Your task to perform on an android device: Turn on the flashlight Image 0: 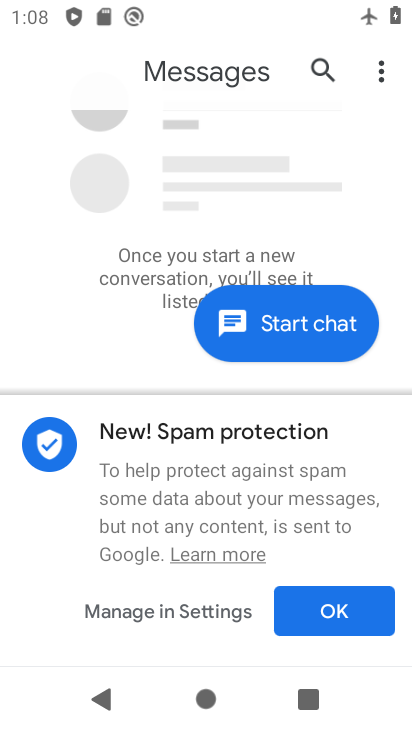
Step 0: press back button
Your task to perform on an android device: Turn on the flashlight Image 1: 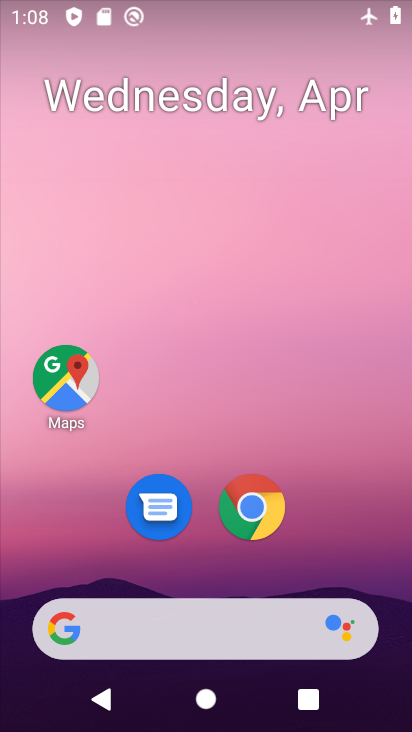
Step 1: drag from (385, 5) to (333, 538)
Your task to perform on an android device: Turn on the flashlight Image 2: 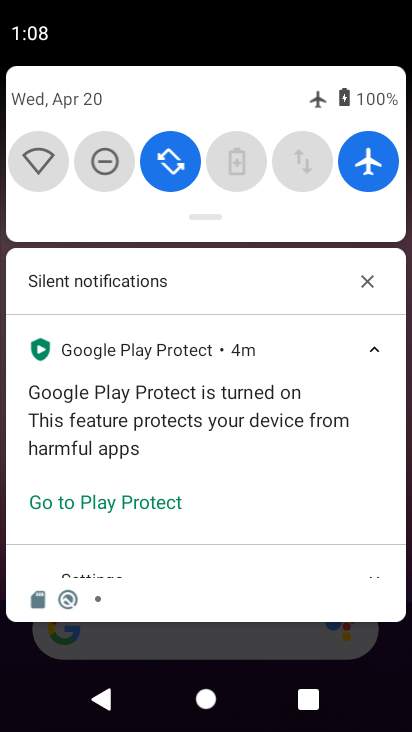
Step 2: click (373, 167)
Your task to perform on an android device: Turn on the flashlight Image 3: 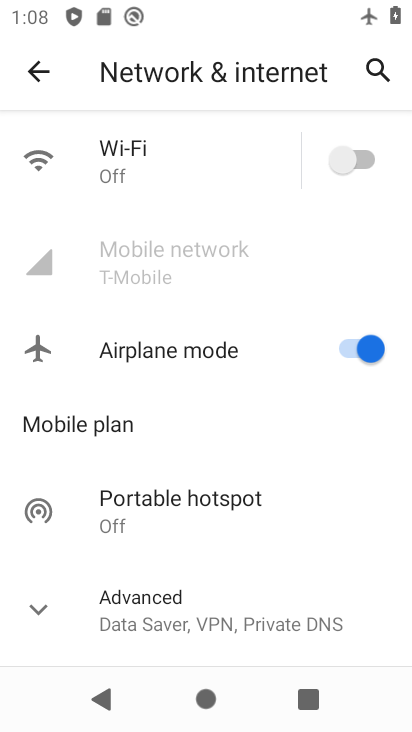
Step 3: click (344, 340)
Your task to perform on an android device: Turn on the flashlight Image 4: 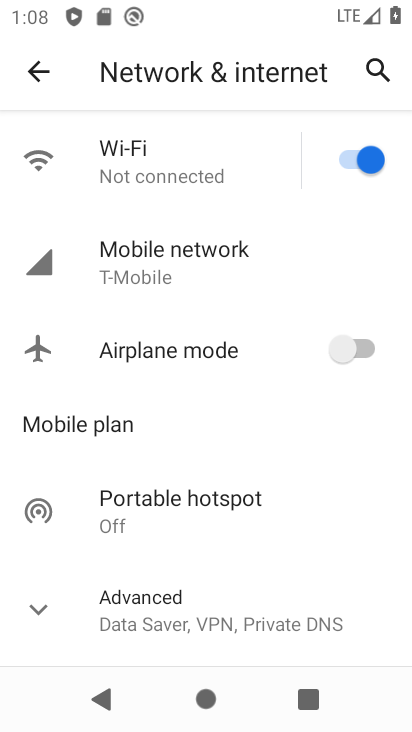
Step 4: task complete